Your task to perform on an android device: What's on my calendar today? Image 0: 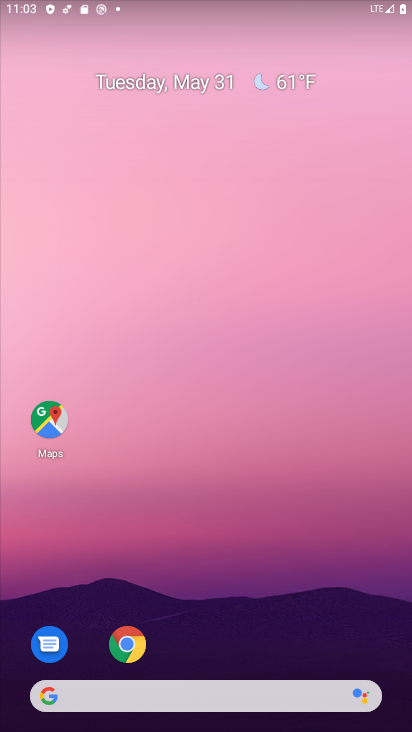
Step 0: drag from (192, 620) to (243, 78)
Your task to perform on an android device: What's on my calendar today? Image 1: 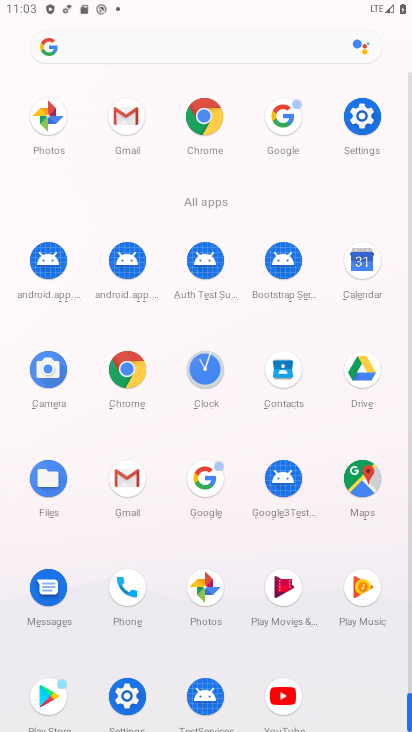
Step 1: click (352, 269)
Your task to perform on an android device: What's on my calendar today? Image 2: 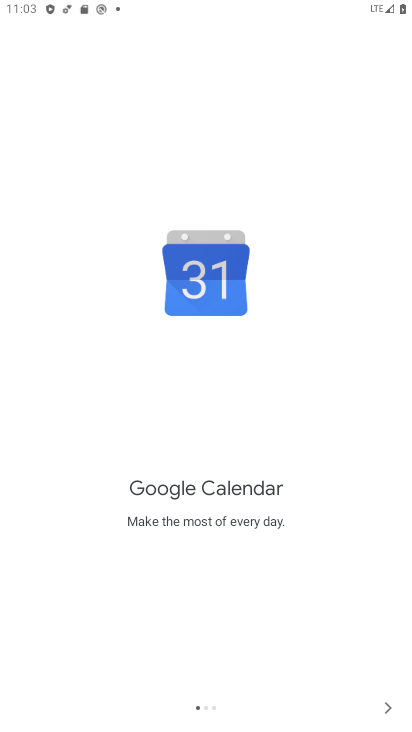
Step 2: click (389, 697)
Your task to perform on an android device: What's on my calendar today? Image 3: 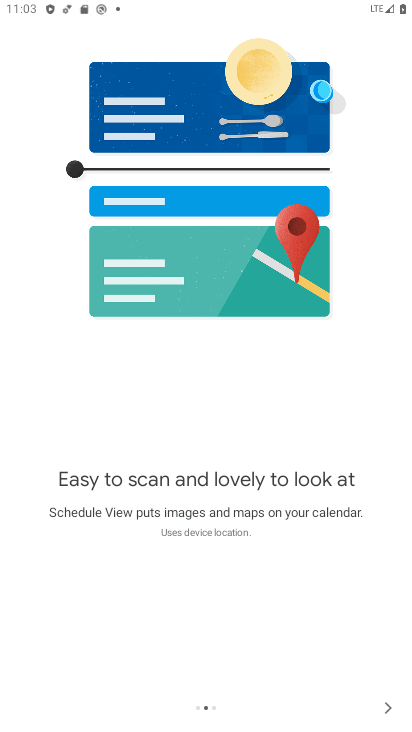
Step 3: click (389, 704)
Your task to perform on an android device: What's on my calendar today? Image 4: 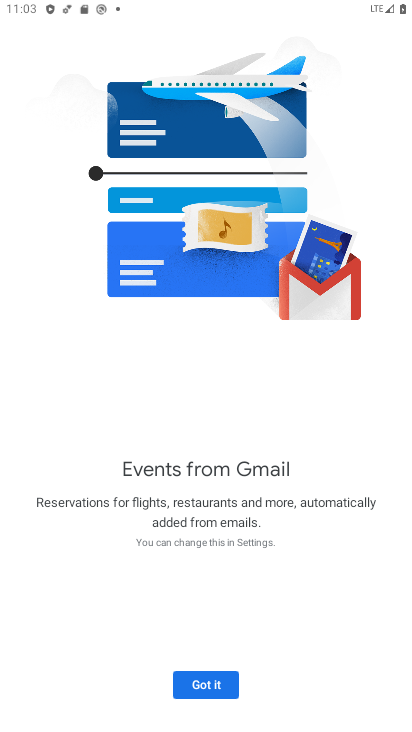
Step 4: click (202, 682)
Your task to perform on an android device: What's on my calendar today? Image 5: 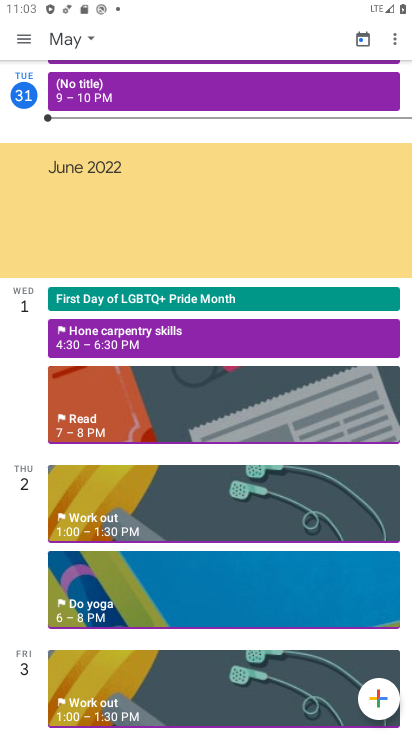
Step 5: click (70, 39)
Your task to perform on an android device: What's on my calendar today? Image 6: 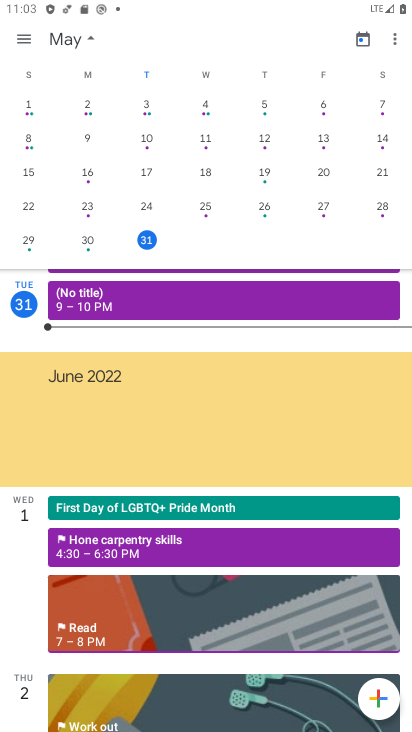
Step 6: drag from (381, 169) to (19, 131)
Your task to perform on an android device: What's on my calendar today? Image 7: 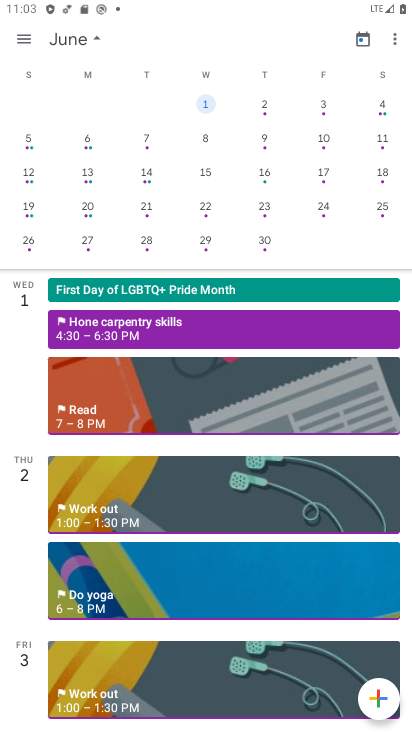
Step 7: click (105, 321)
Your task to perform on an android device: What's on my calendar today? Image 8: 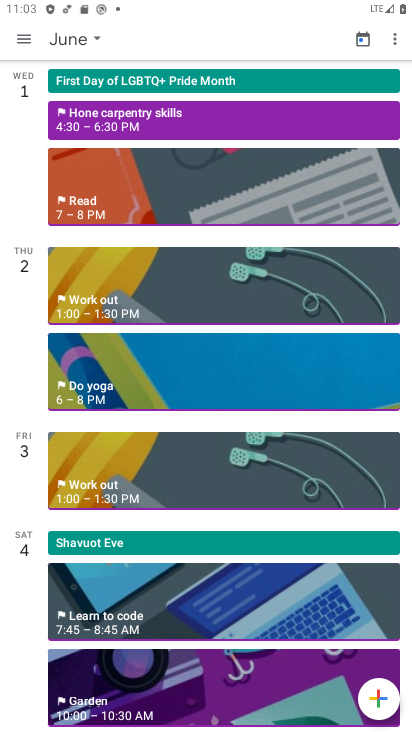
Step 8: task complete